Your task to perform on an android device: change the clock display to show seconds Image 0: 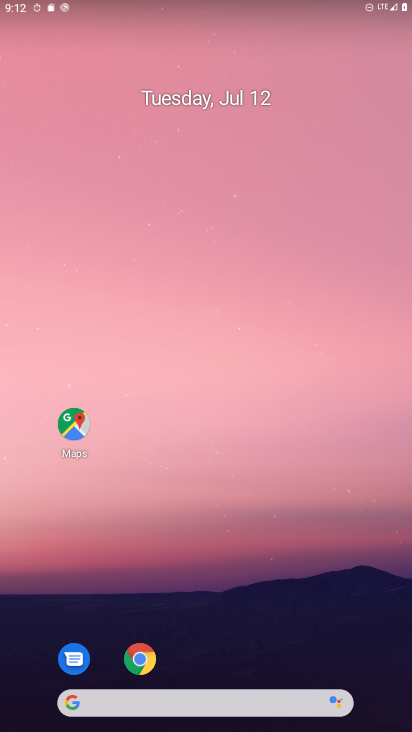
Step 0: drag from (375, 701) to (177, 5)
Your task to perform on an android device: change the clock display to show seconds Image 1: 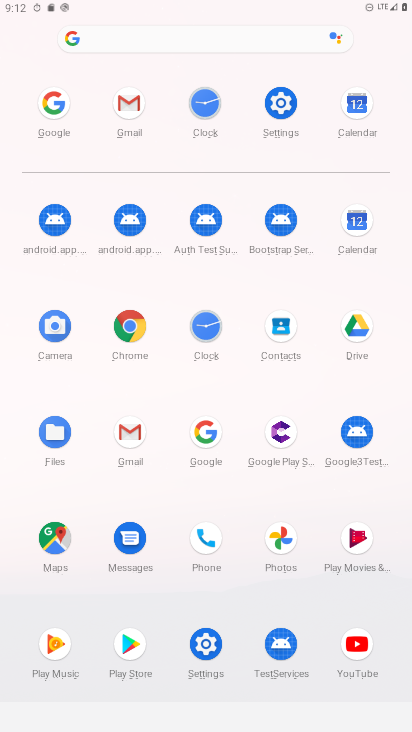
Step 1: click (210, 321)
Your task to perform on an android device: change the clock display to show seconds Image 2: 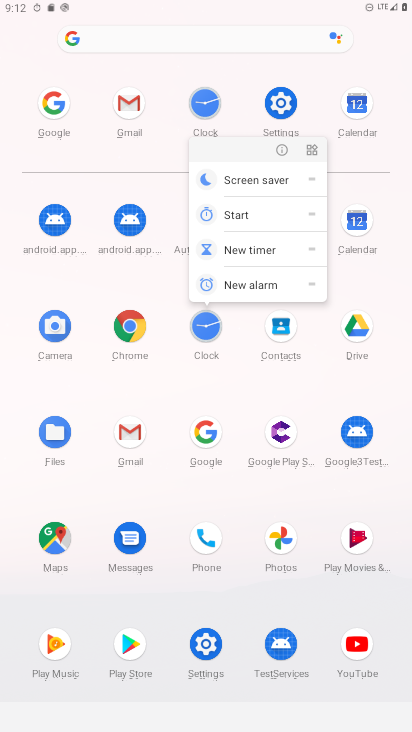
Step 2: click (209, 320)
Your task to perform on an android device: change the clock display to show seconds Image 3: 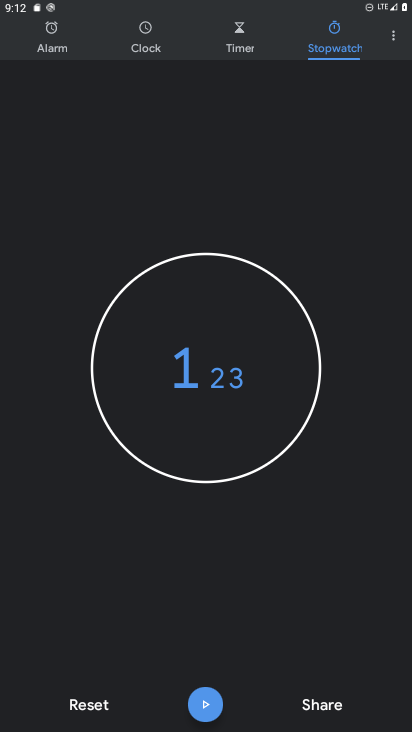
Step 3: click (395, 35)
Your task to perform on an android device: change the clock display to show seconds Image 4: 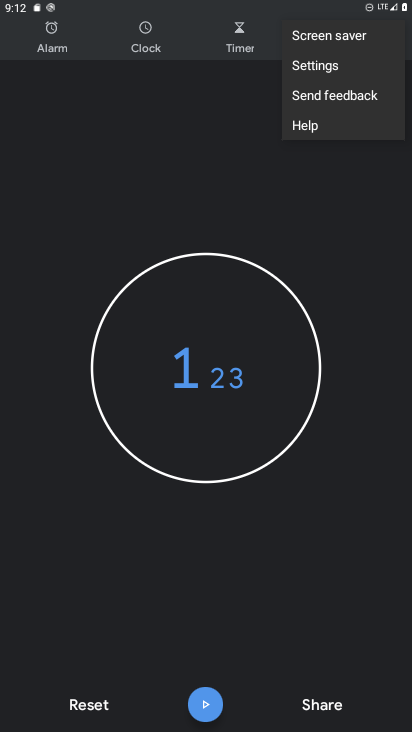
Step 4: click (312, 71)
Your task to perform on an android device: change the clock display to show seconds Image 5: 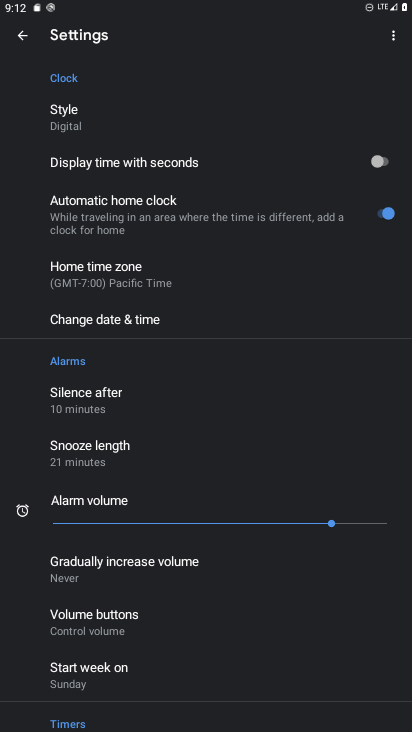
Step 5: click (340, 161)
Your task to perform on an android device: change the clock display to show seconds Image 6: 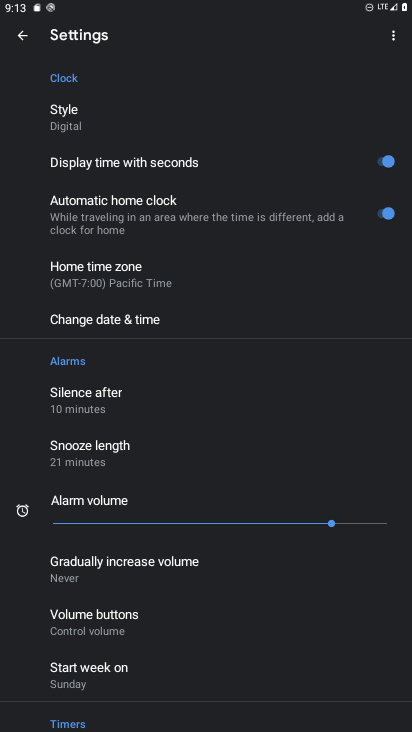
Step 6: task complete